Your task to perform on an android device: Open Google Maps Image 0: 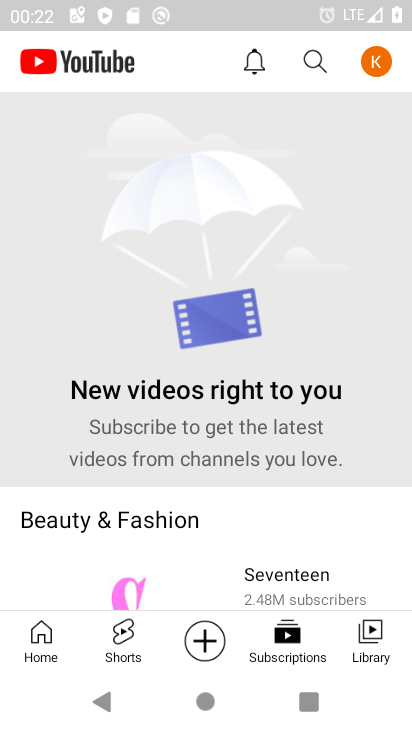
Step 0: press home button
Your task to perform on an android device: Open Google Maps Image 1: 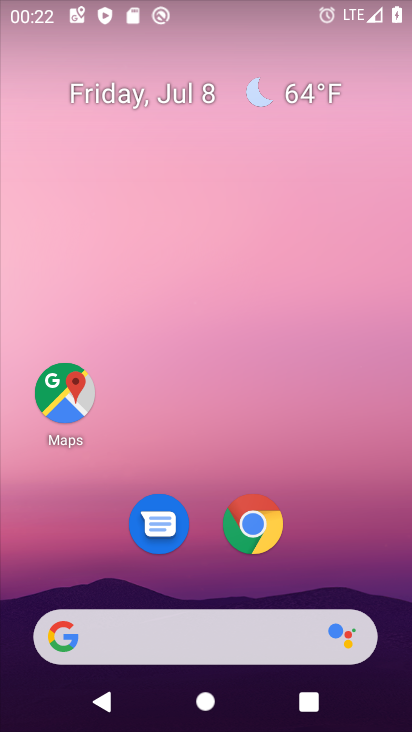
Step 1: click (66, 400)
Your task to perform on an android device: Open Google Maps Image 2: 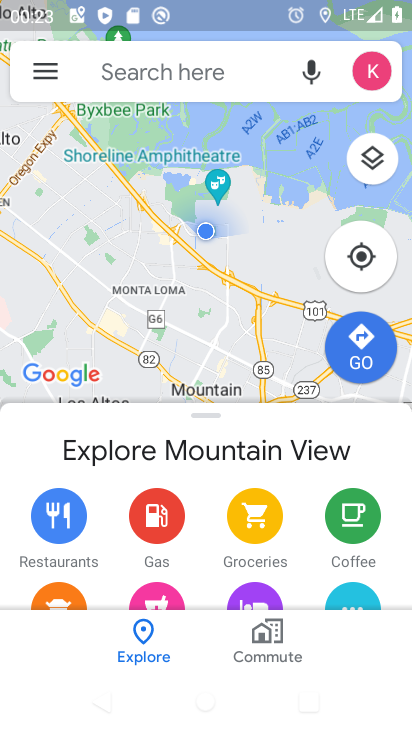
Step 2: task complete